Your task to perform on an android device: open wifi settings Image 0: 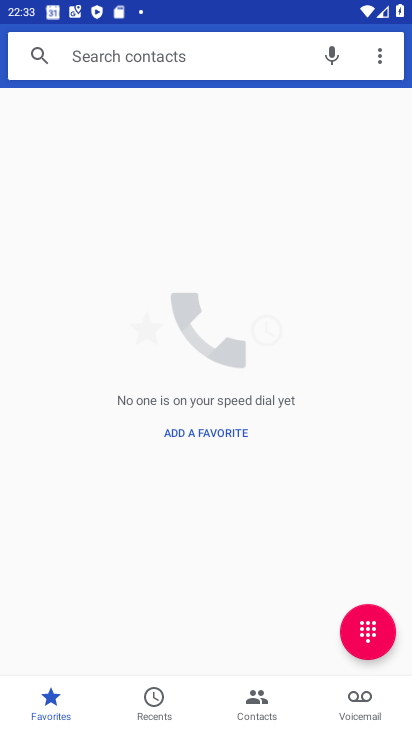
Step 0: press home button
Your task to perform on an android device: open wifi settings Image 1: 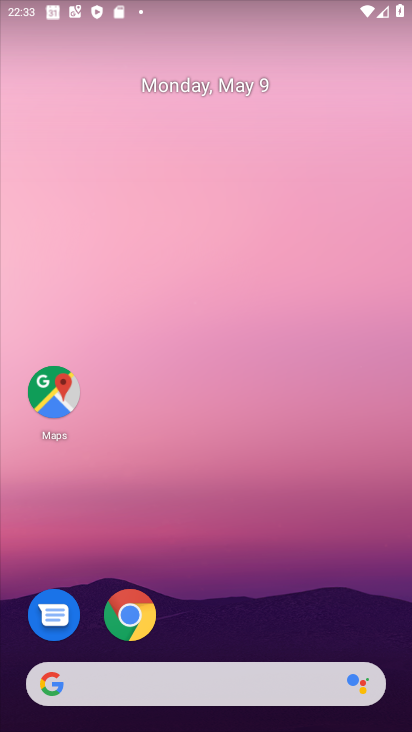
Step 1: drag from (185, 647) to (204, 187)
Your task to perform on an android device: open wifi settings Image 2: 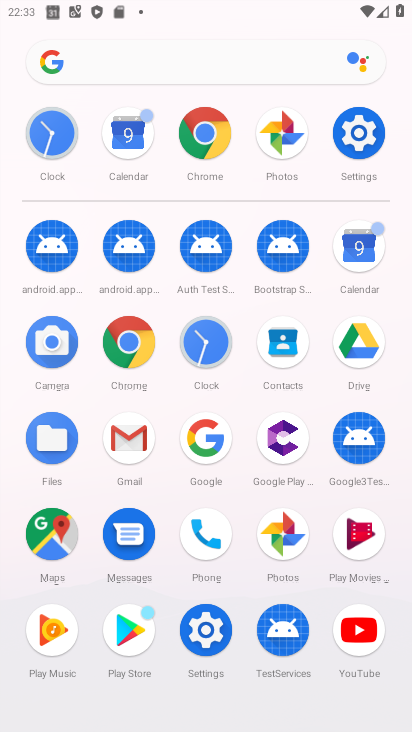
Step 2: click (362, 130)
Your task to perform on an android device: open wifi settings Image 3: 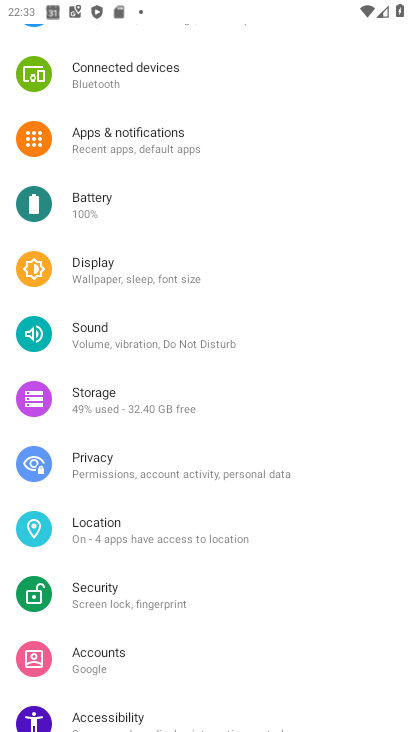
Step 3: drag from (300, 376) to (325, 719)
Your task to perform on an android device: open wifi settings Image 4: 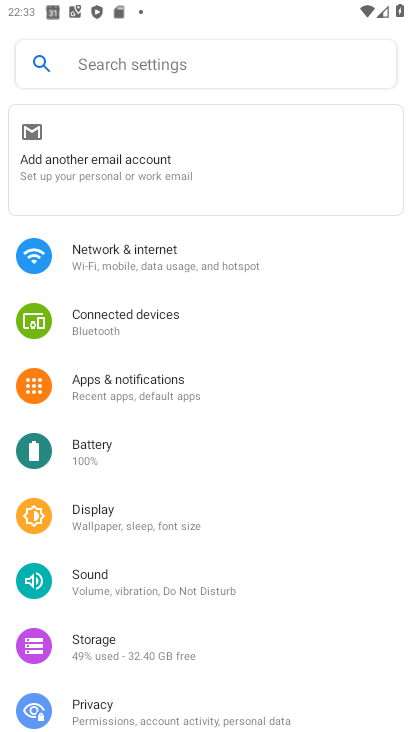
Step 4: click (144, 256)
Your task to perform on an android device: open wifi settings Image 5: 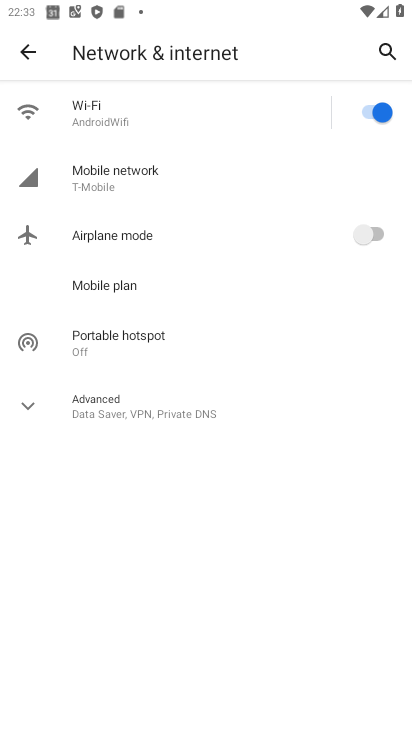
Step 5: click (113, 125)
Your task to perform on an android device: open wifi settings Image 6: 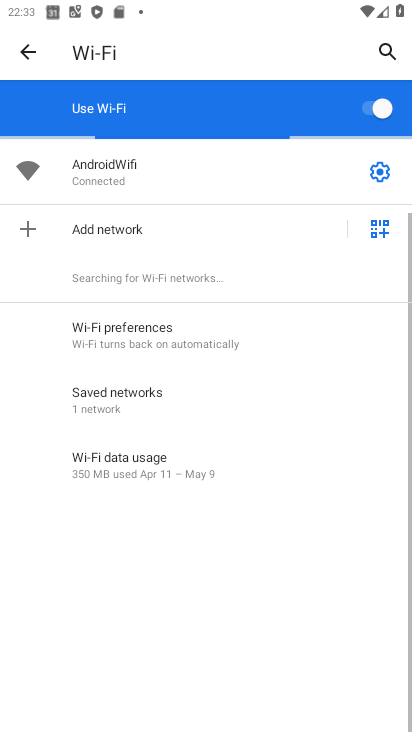
Step 6: task complete